Your task to perform on an android device: remove spam from my inbox in the gmail app Image 0: 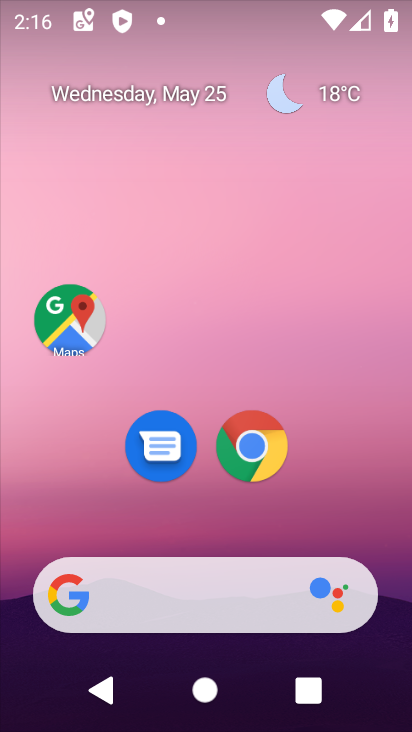
Step 0: drag from (203, 574) to (235, 80)
Your task to perform on an android device: remove spam from my inbox in the gmail app Image 1: 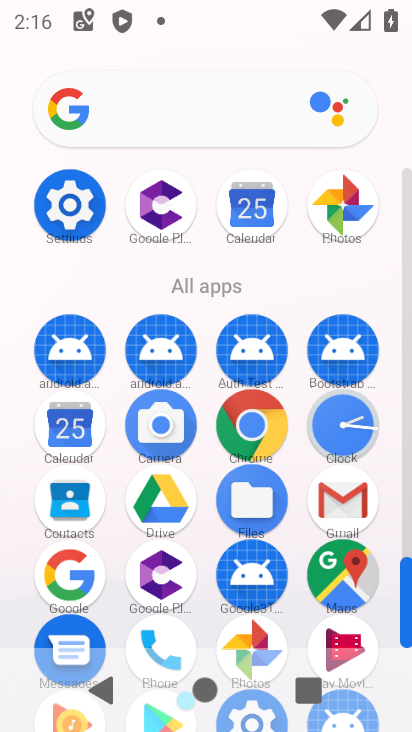
Step 1: click (335, 501)
Your task to perform on an android device: remove spam from my inbox in the gmail app Image 2: 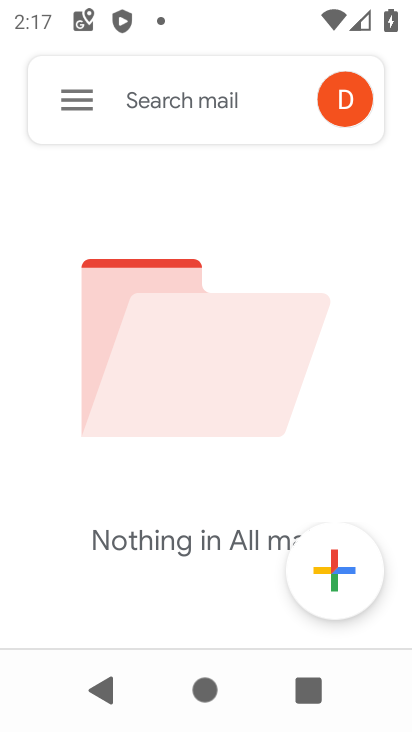
Step 2: click (87, 107)
Your task to perform on an android device: remove spam from my inbox in the gmail app Image 3: 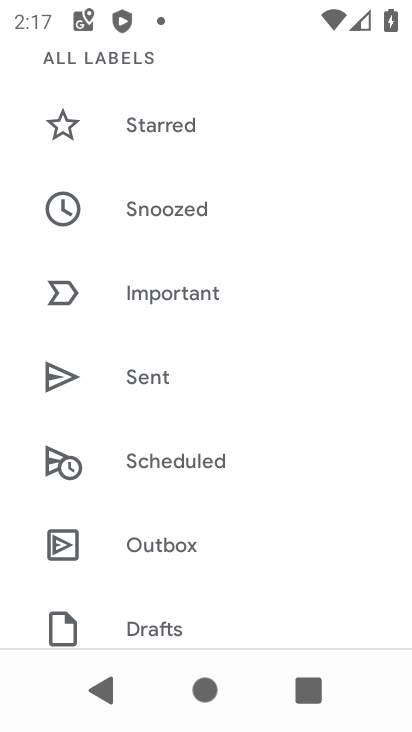
Step 3: drag from (182, 540) to (290, 175)
Your task to perform on an android device: remove spam from my inbox in the gmail app Image 4: 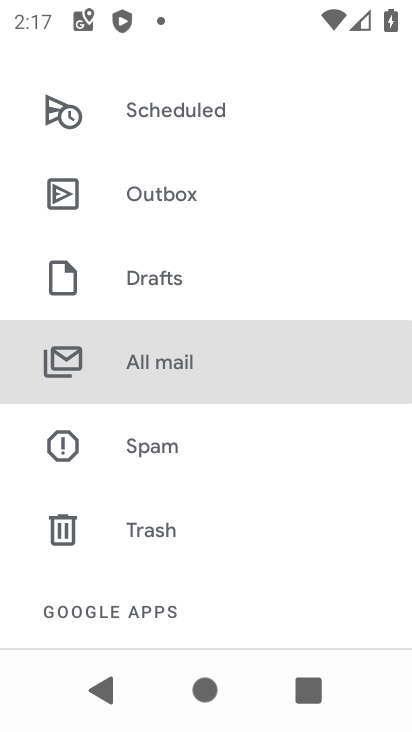
Step 4: click (157, 447)
Your task to perform on an android device: remove spam from my inbox in the gmail app Image 5: 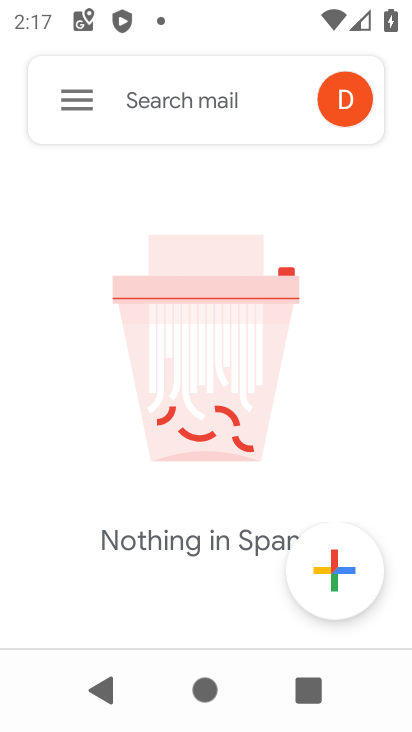
Step 5: task complete